Your task to perform on an android device: change the clock style Image 0: 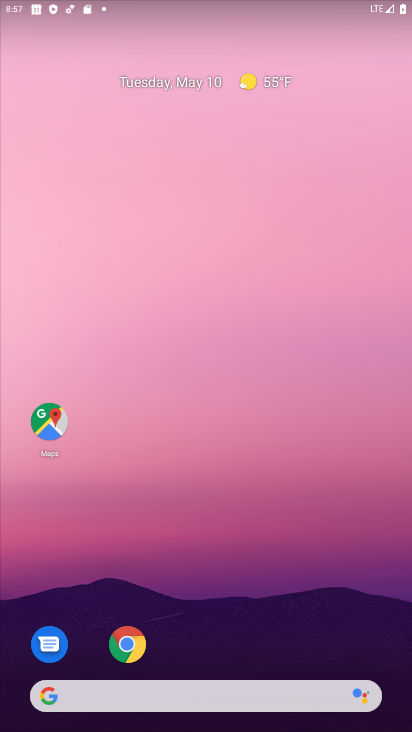
Step 0: drag from (234, 603) to (256, 271)
Your task to perform on an android device: change the clock style Image 1: 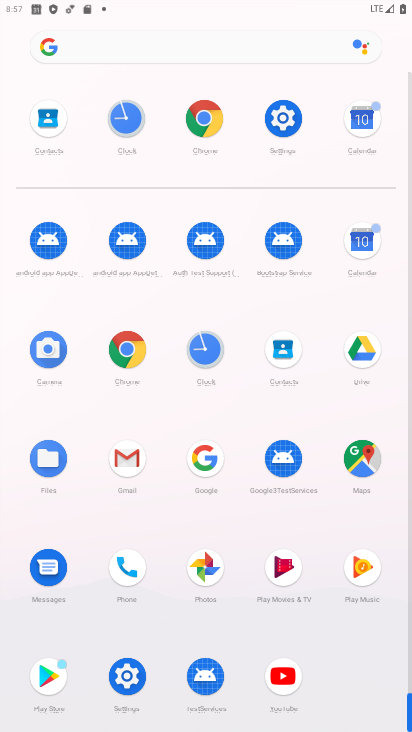
Step 1: click (217, 372)
Your task to perform on an android device: change the clock style Image 2: 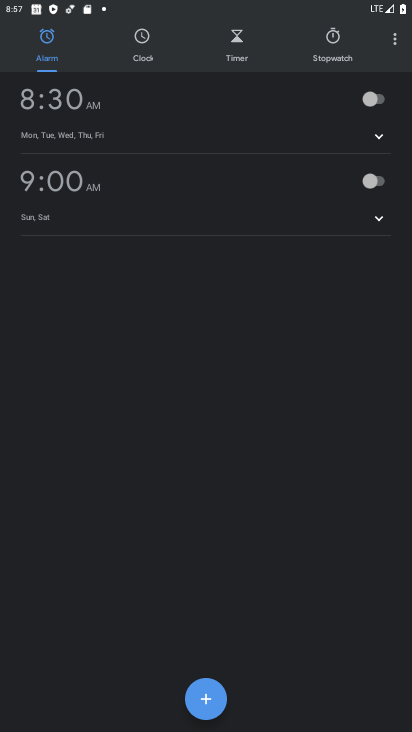
Step 2: click (395, 35)
Your task to perform on an android device: change the clock style Image 3: 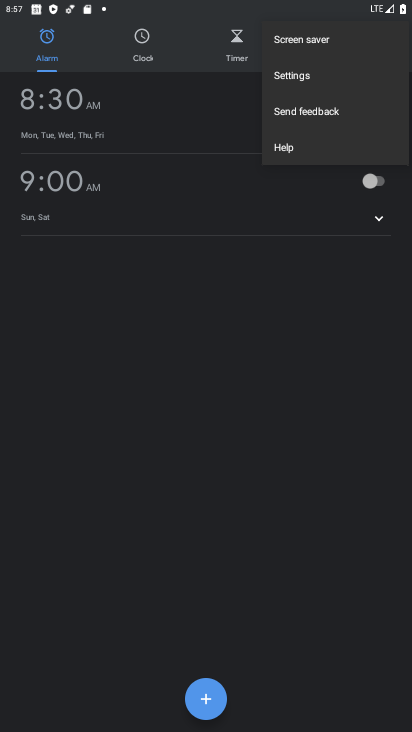
Step 3: click (303, 75)
Your task to perform on an android device: change the clock style Image 4: 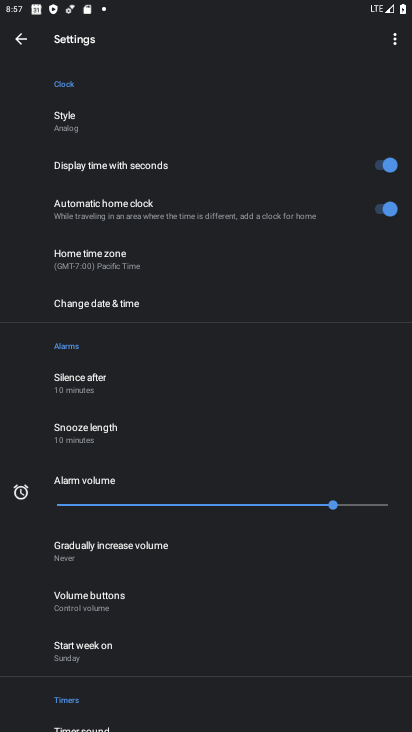
Step 4: click (52, 124)
Your task to perform on an android device: change the clock style Image 5: 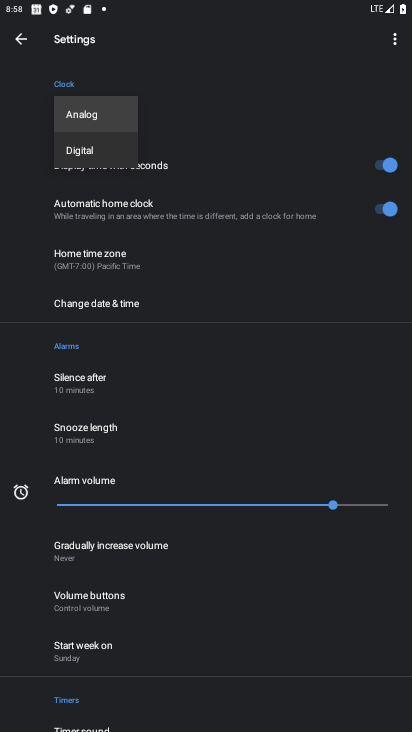
Step 5: click (99, 154)
Your task to perform on an android device: change the clock style Image 6: 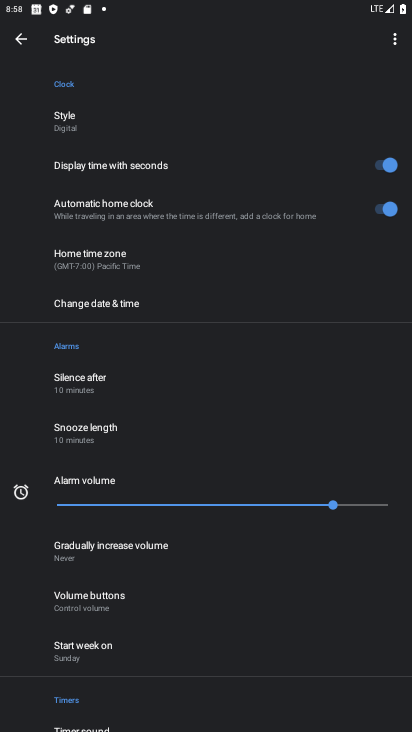
Step 6: task complete